Your task to perform on an android device: Turn off the flashlight Image 0: 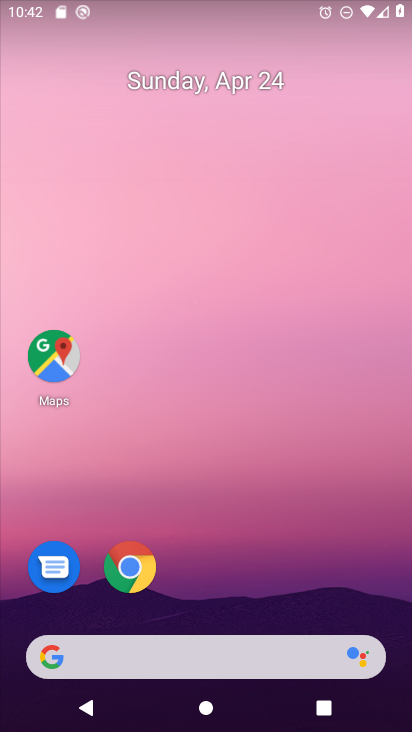
Step 0: drag from (170, 625) to (177, 278)
Your task to perform on an android device: Turn off the flashlight Image 1: 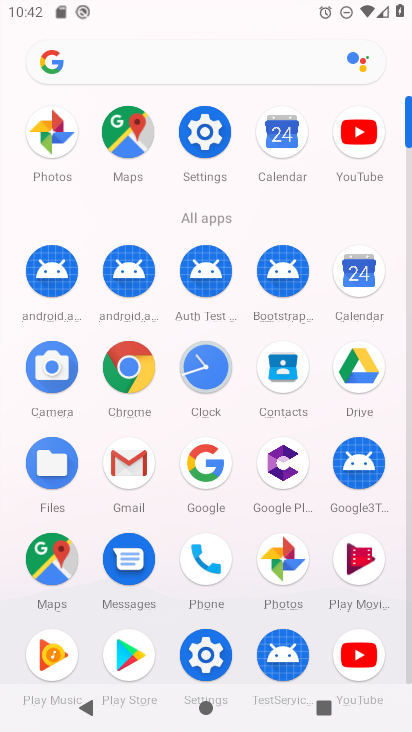
Step 1: click (210, 131)
Your task to perform on an android device: Turn off the flashlight Image 2: 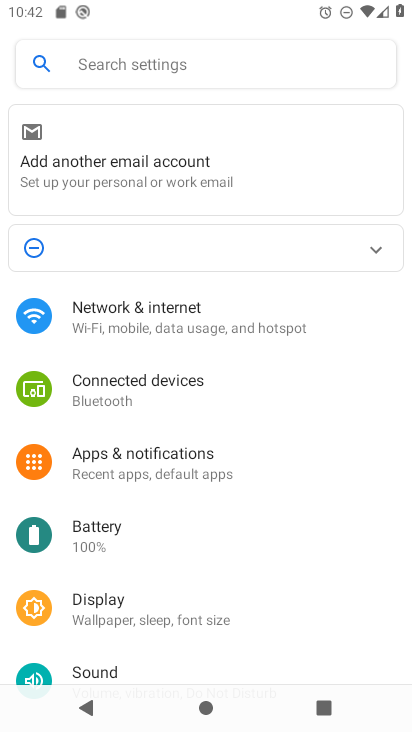
Step 2: drag from (157, 532) to (159, 162)
Your task to perform on an android device: Turn off the flashlight Image 3: 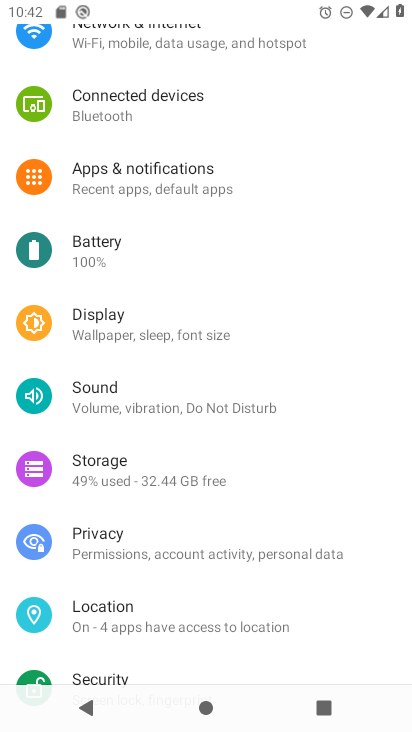
Step 3: drag from (221, 567) to (214, 396)
Your task to perform on an android device: Turn off the flashlight Image 4: 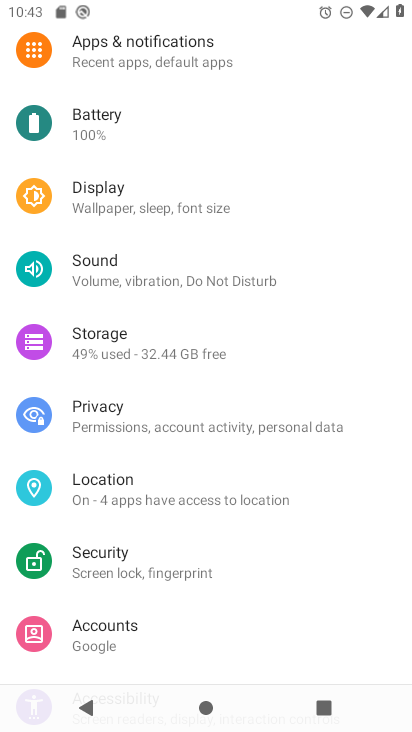
Step 4: click (176, 278)
Your task to perform on an android device: Turn off the flashlight Image 5: 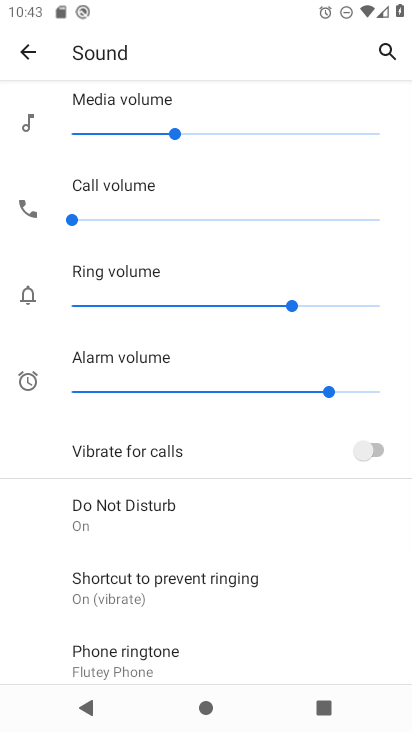
Step 5: click (33, 55)
Your task to perform on an android device: Turn off the flashlight Image 6: 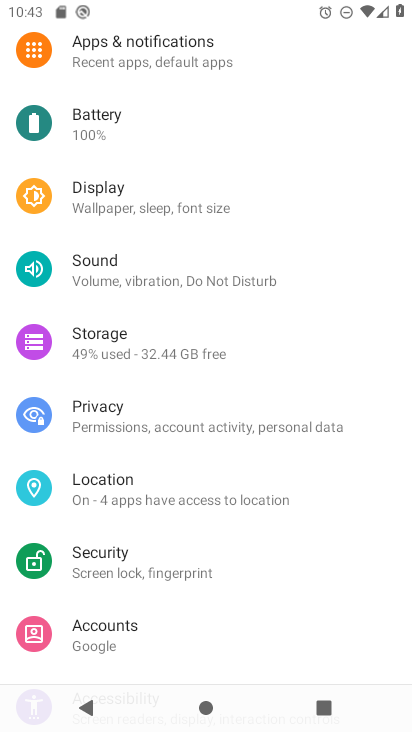
Step 6: click (127, 201)
Your task to perform on an android device: Turn off the flashlight Image 7: 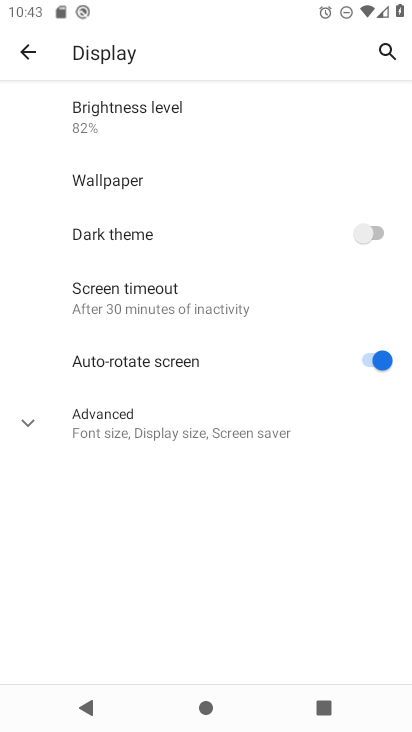
Step 7: task complete